Your task to perform on an android device: turn off wifi Image 0: 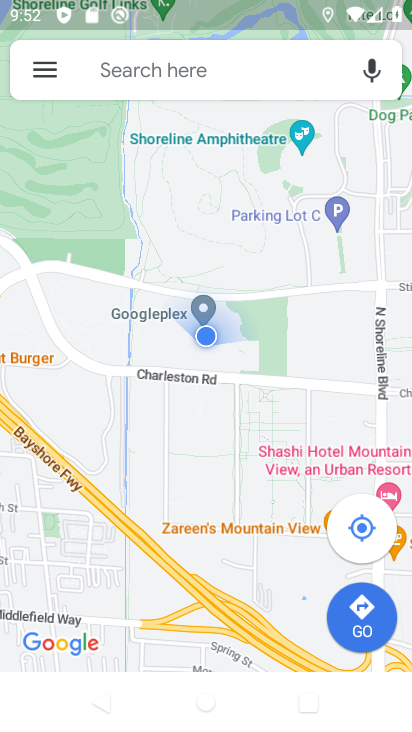
Step 0: press back button
Your task to perform on an android device: turn off wifi Image 1: 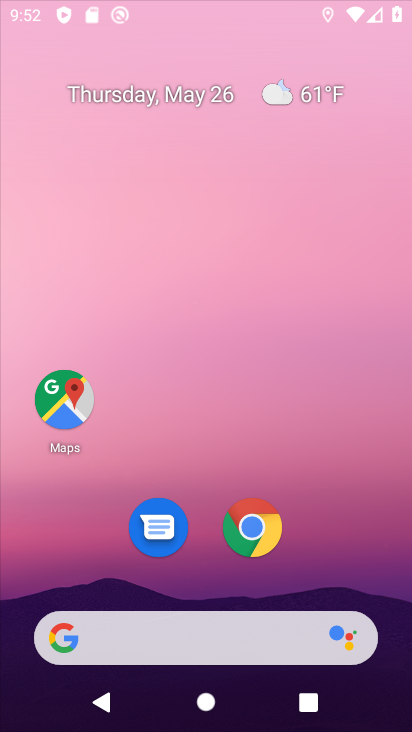
Step 1: press back button
Your task to perform on an android device: turn off wifi Image 2: 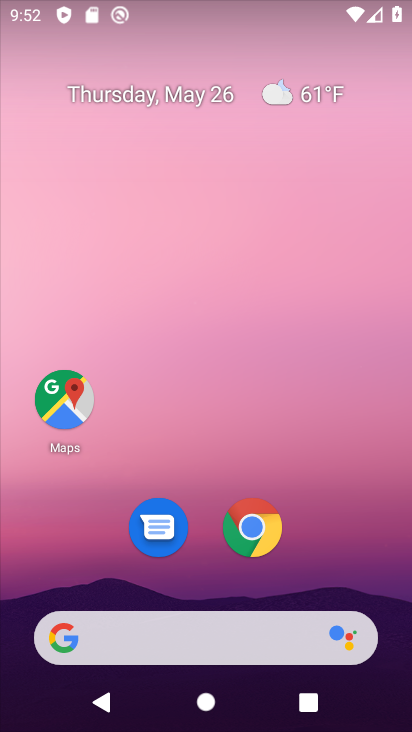
Step 2: drag from (81, 11) to (88, 496)
Your task to perform on an android device: turn off wifi Image 3: 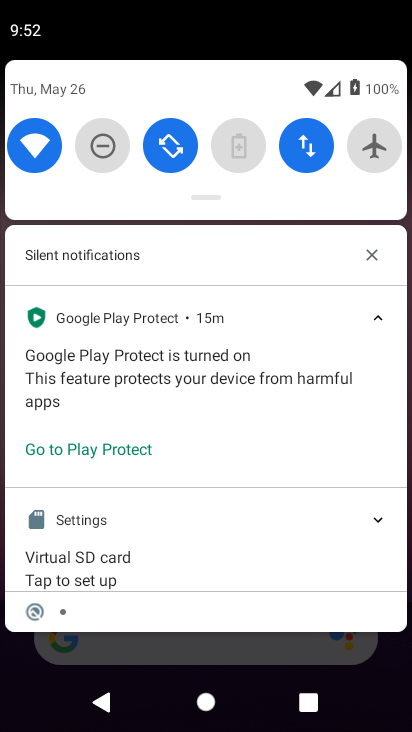
Step 3: click (46, 145)
Your task to perform on an android device: turn off wifi Image 4: 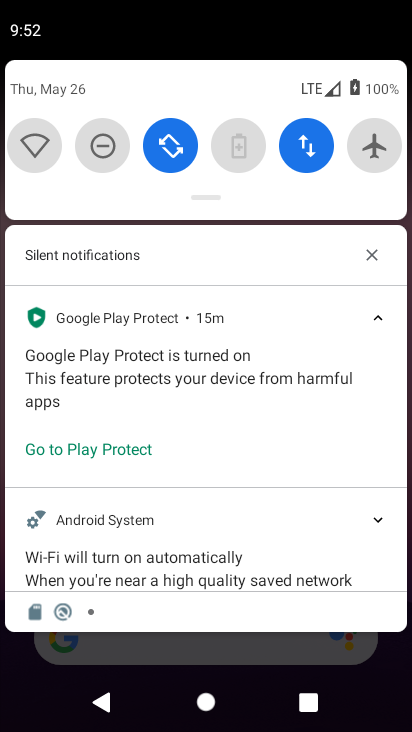
Step 4: task complete